Your task to perform on an android device: change the clock style Image 0: 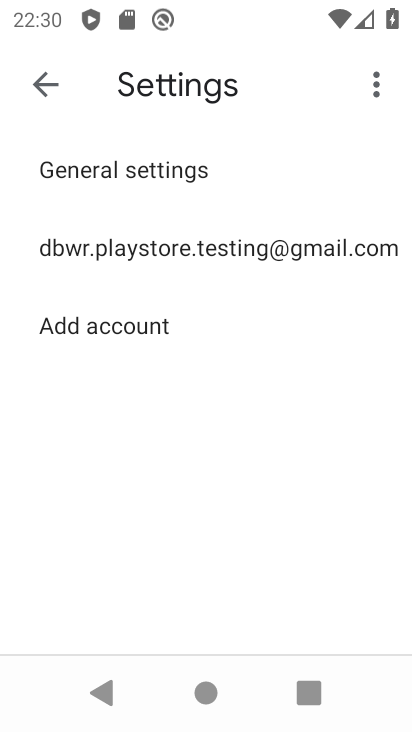
Step 0: press home button
Your task to perform on an android device: change the clock style Image 1: 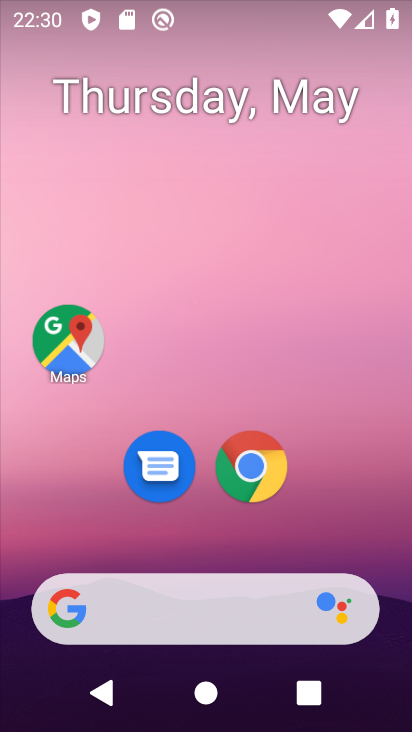
Step 1: drag from (333, 483) to (309, 49)
Your task to perform on an android device: change the clock style Image 2: 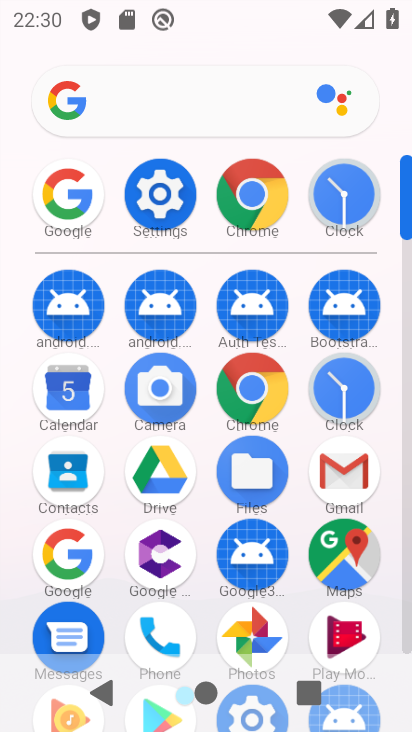
Step 2: click (340, 396)
Your task to perform on an android device: change the clock style Image 3: 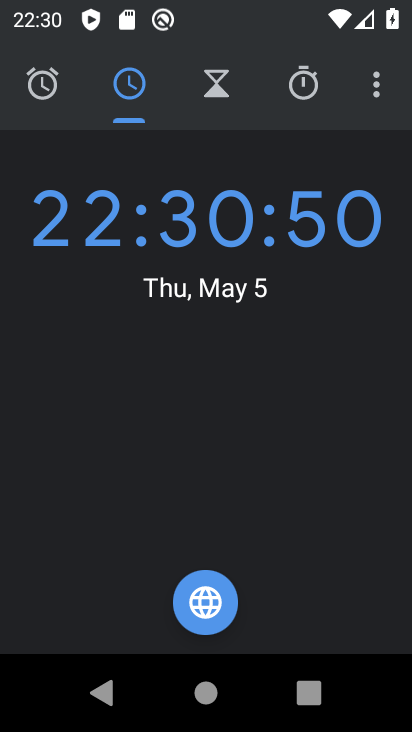
Step 3: click (376, 79)
Your task to perform on an android device: change the clock style Image 4: 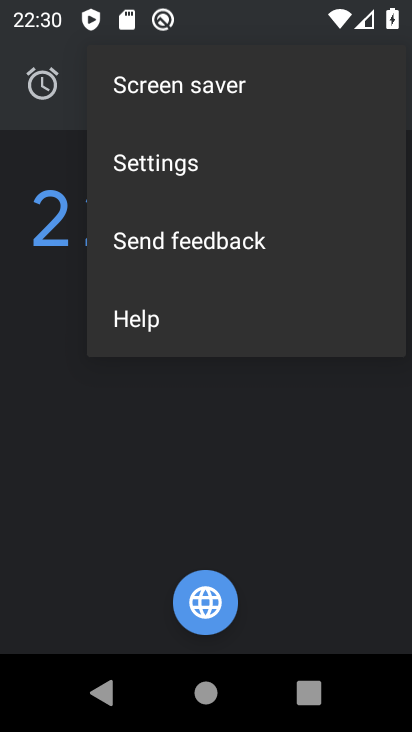
Step 4: click (134, 168)
Your task to perform on an android device: change the clock style Image 5: 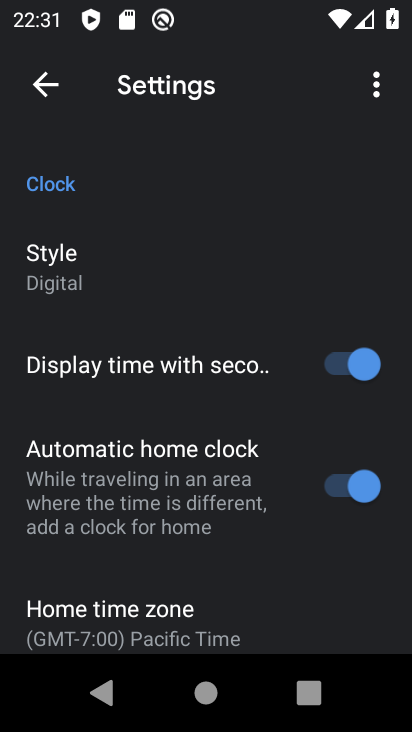
Step 5: click (92, 256)
Your task to perform on an android device: change the clock style Image 6: 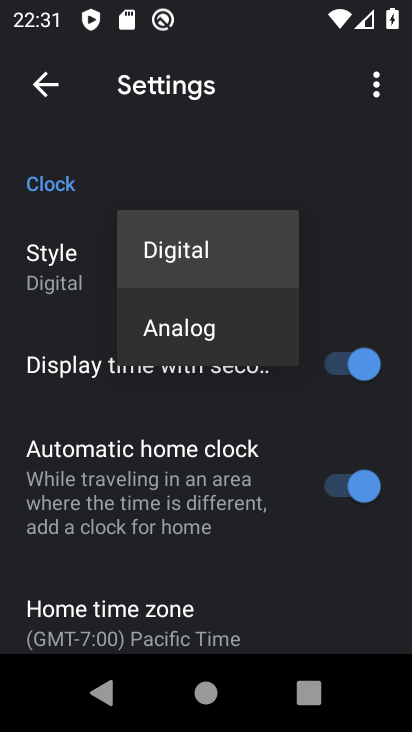
Step 6: click (154, 340)
Your task to perform on an android device: change the clock style Image 7: 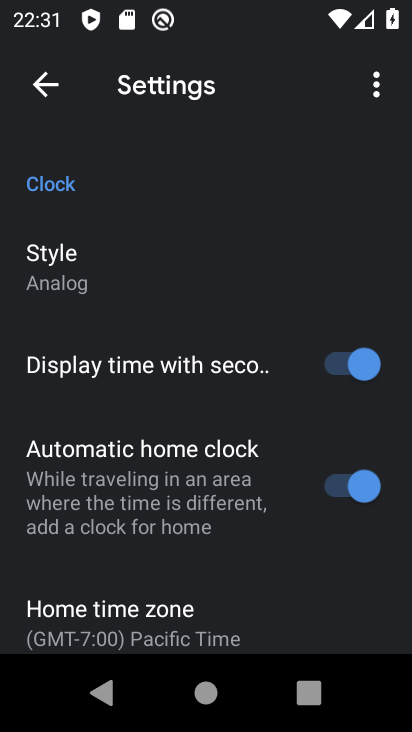
Step 7: task complete